Your task to perform on an android device: open sync settings in chrome Image 0: 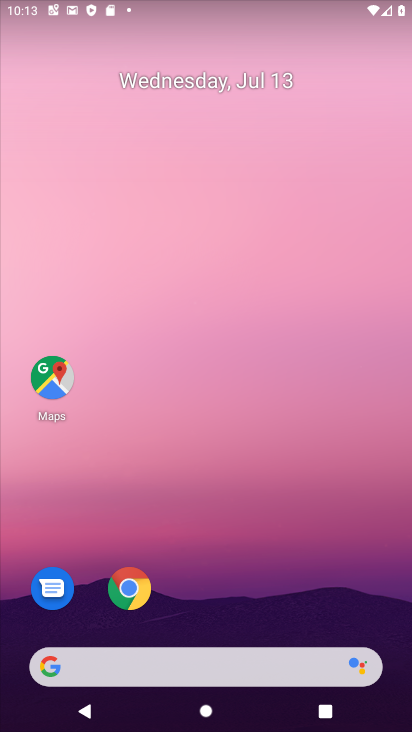
Step 0: click (137, 583)
Your task to perform on an android device: open sync settings in chrome Image 1: 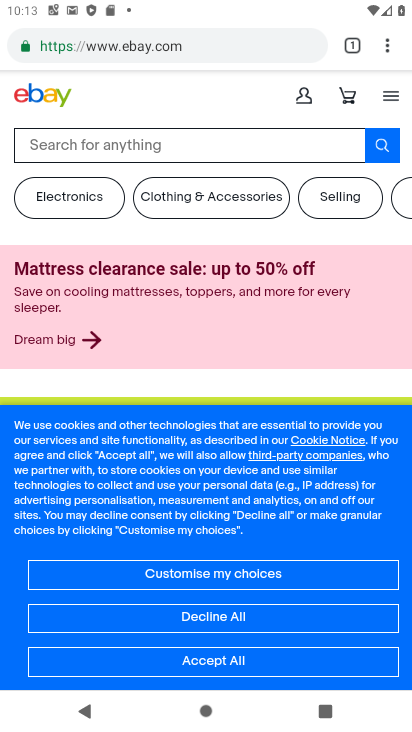
Step 1: drag from (387, 47) to (217, 551)
Your task to perform on an android device: open sync settings in chrome Image 2: 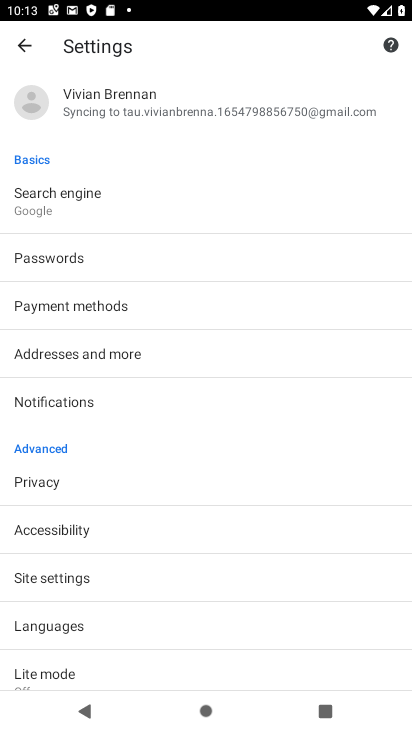
Step 2: click (72, 98)
Your task to perform on an android device: open sync settings in chrome Image 3: 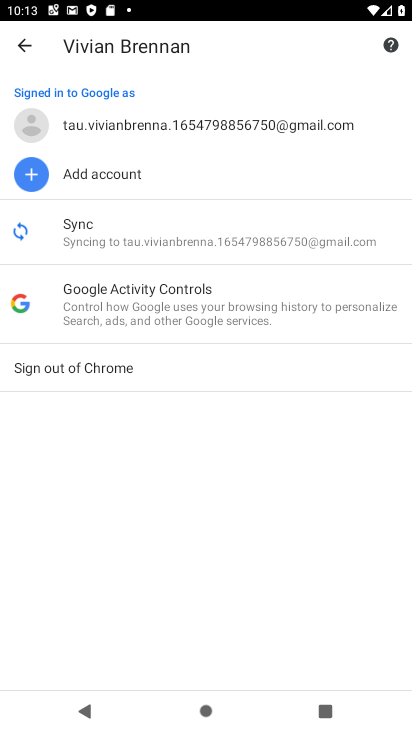
Step 3: click (113, 230)
Your task to perform on an android device: open sync settings in chrome Image 4: 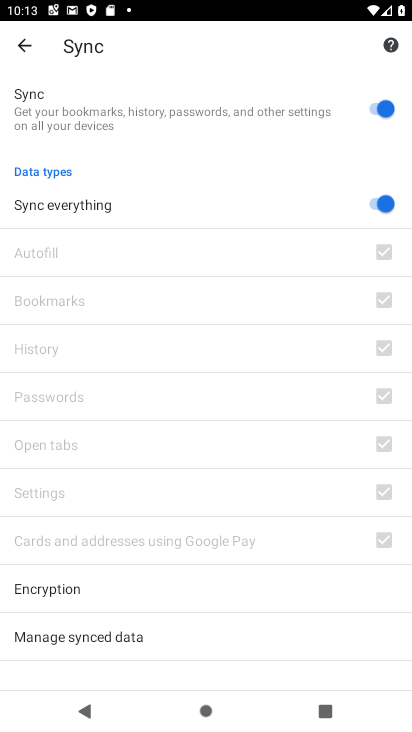
Step 4: task complete